Your task to perform on an android device: Open the web browser Image 0: 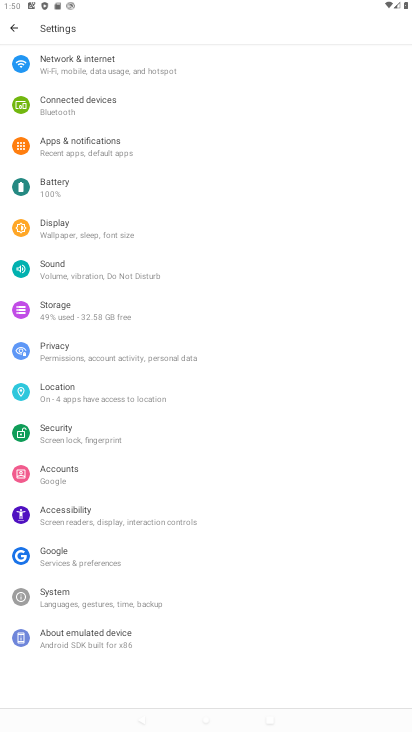
Step 0: press home button
Your task to perform on an android device: Open the web browser Image 1: 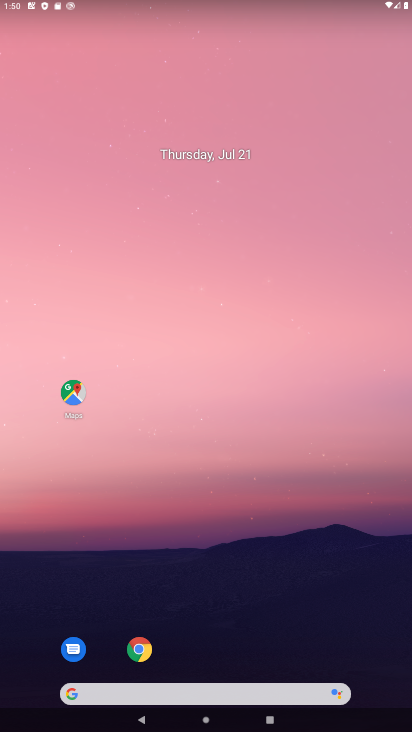
Step 1: click (143, 645)
Your task to perform on an android device: Open the web browser Image 2: 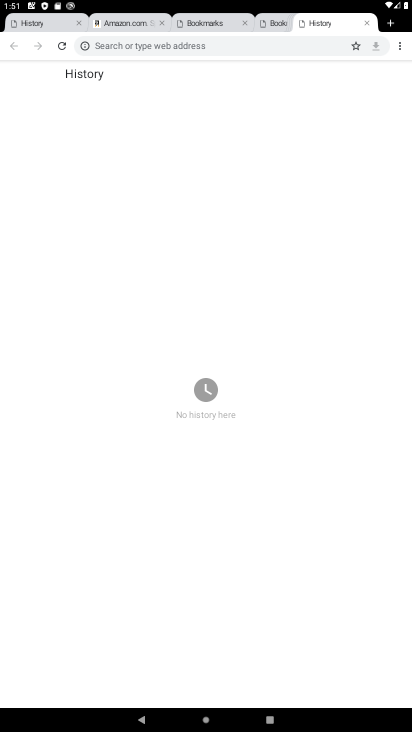
Step 2: task complete